Your task to perform on an android device: Open battery settings Image 0: 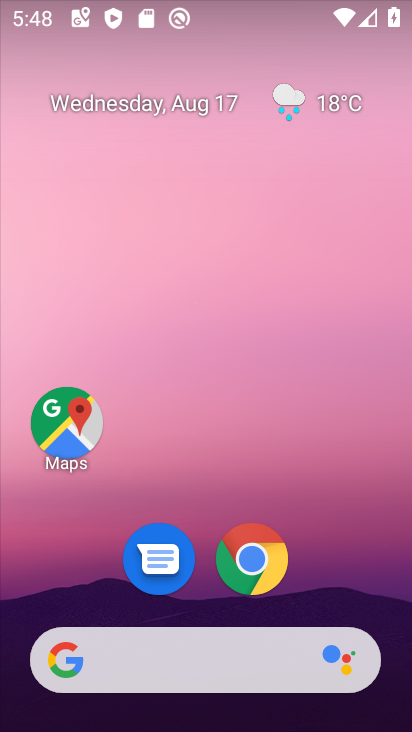
Step 0: drag from (200, 651) to (192, 78)
Your task to perform on an android device: Open battery settings Image 1: 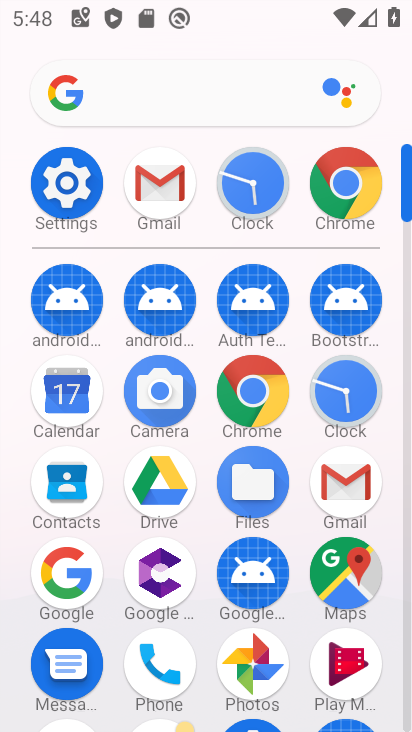
Step 1: click (85, 190)
Your task to perform on an android device: Open battery settings Image 2: 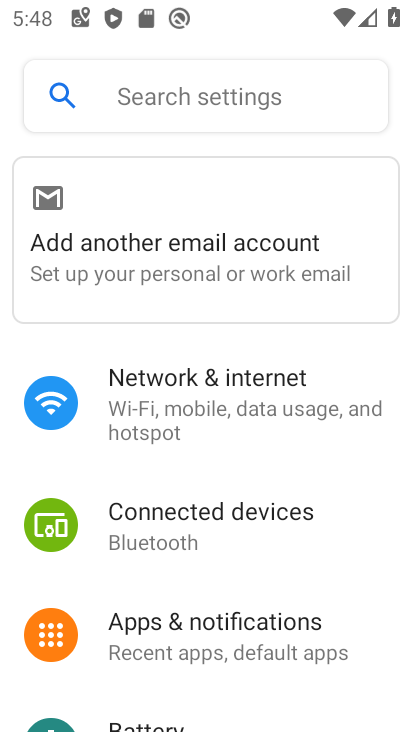
Step 2: drag from (171, 665) to (156, 65)
Your task to perform on an android device: Open battery settings Image 3: 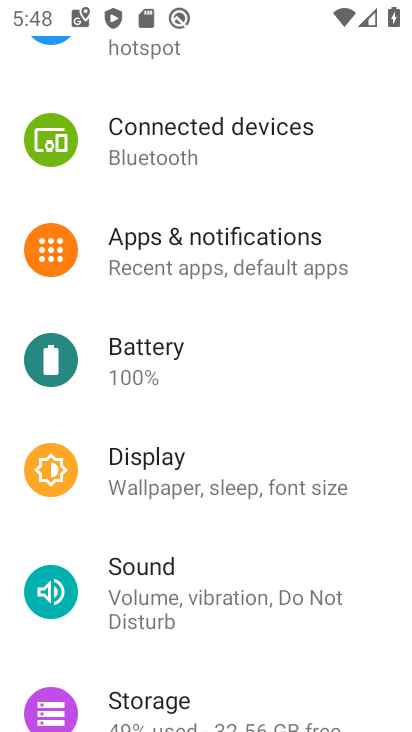
Step 3: click (177, 364)
Your task to perform on an android device: Open battery settings Image 4: 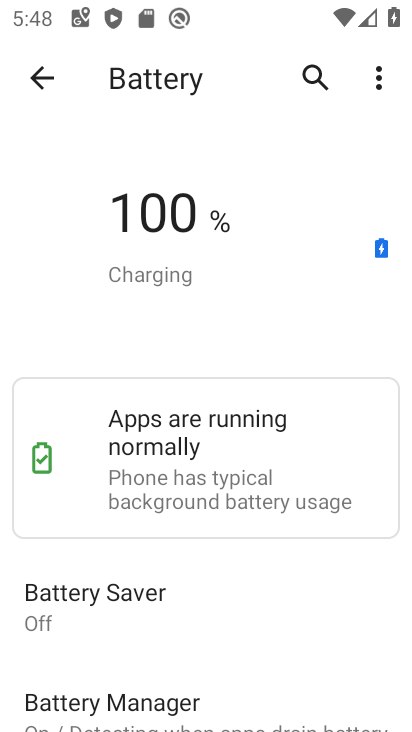
Step 4: task complete